Your task to perform on an android device: turn on translation in the chrome app Image 0: 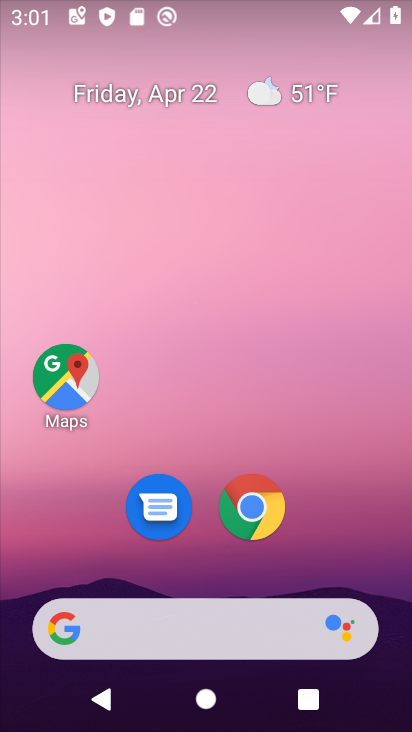
Step 0: click (242, 521)
Your task to perform on an android device: turn on translation in the chrome app Image 1: 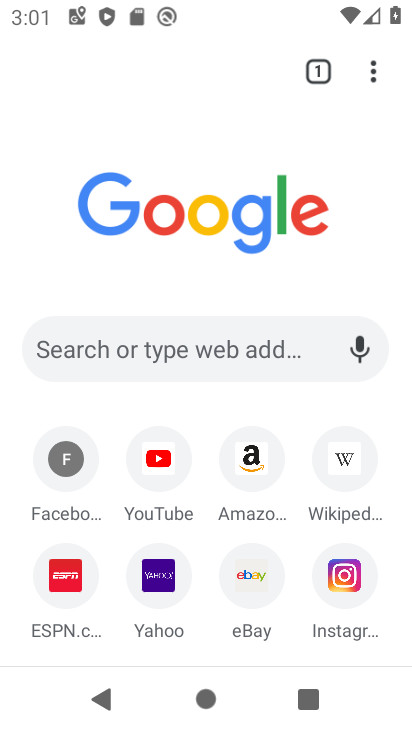
Step 1: click (368, 54)
Your task to perform on an android device: turn on translation in the chrome app Image 2: 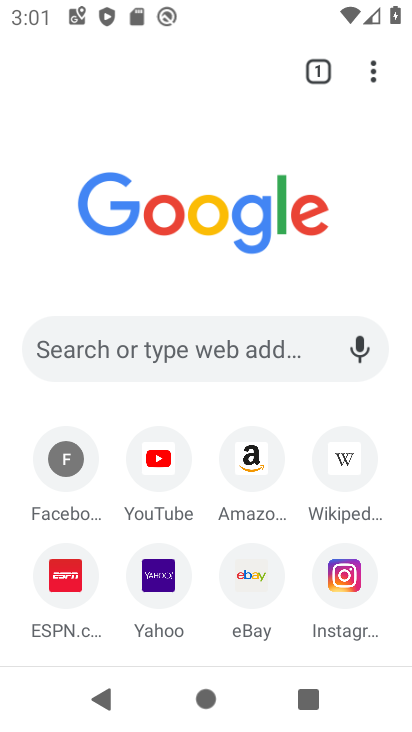
Step 2: drag from (374, 62) to (119, 504)
Your task to perform on an android device: turn on translation in the chrome app Image 3: 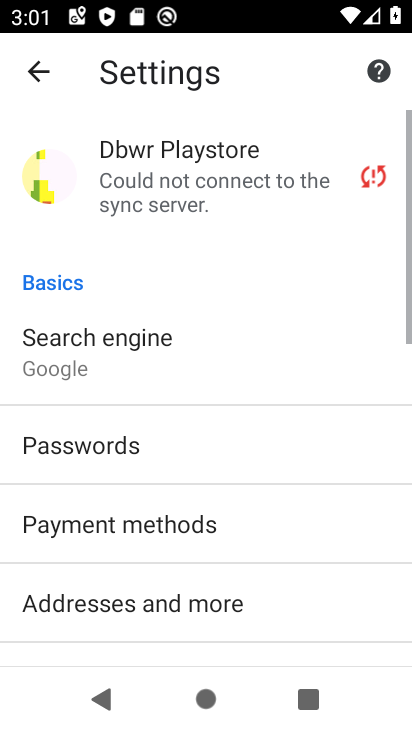
Step 3: drag from (129, 499) to (251, 43)
Your task to perform on an android device: turn on translation in the chrome app Image 4: 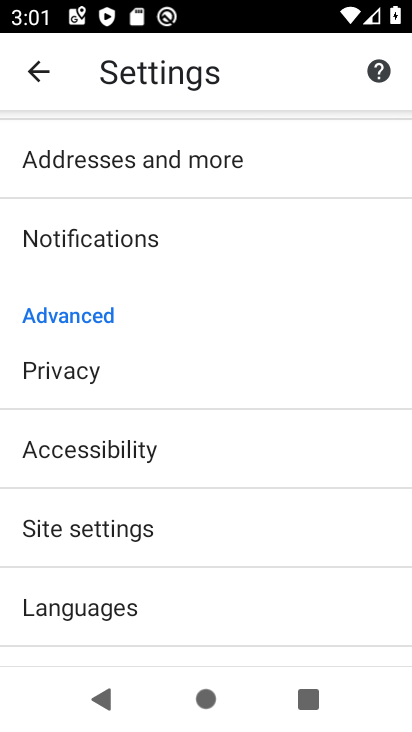
Step 4: click (77, 610)
Your task to perform on an android device: turn on translation in the chrome app Image 5: 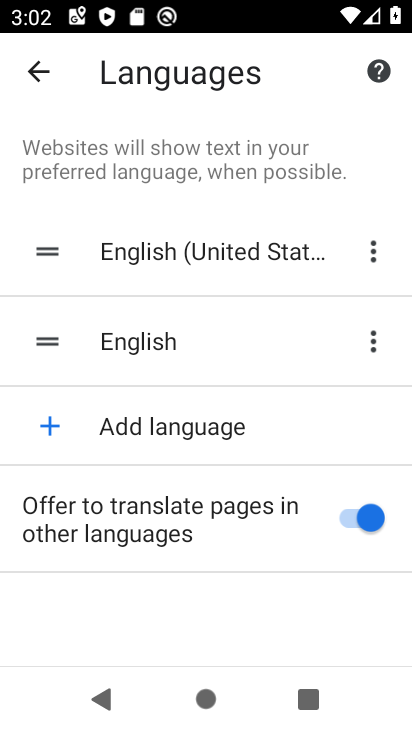
Step 5: task complete